Your task to perform on an android device: find snoozed emails in the gmail app Image 0: 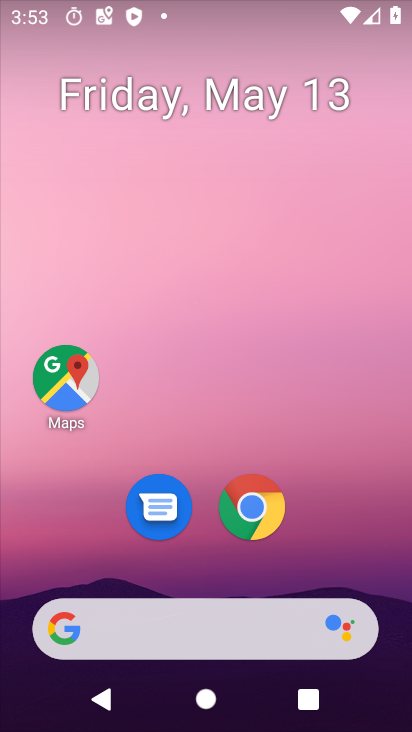
Step 0: drag from (259, 554) to (261, 118)
Your task to perform on an android device: find snoozed emails in the gmail app Image 1: 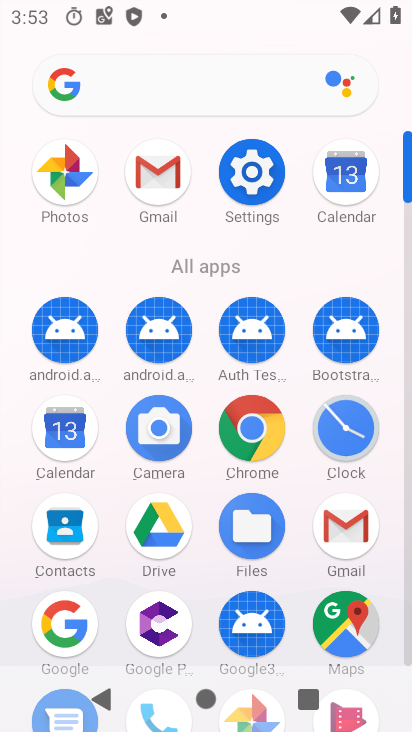
Step 1: click (170, 174)
Your task to perform on an android device: find snoozed emails in the gmail app Image 2: 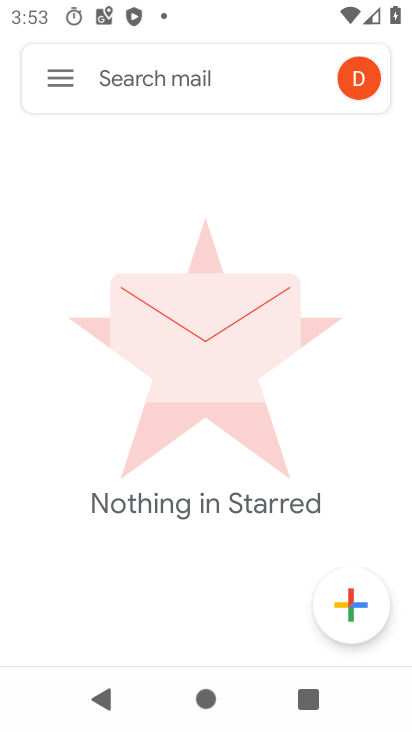
Step 2: click (44, 81)
Your task to perform on an android device: find snoozed emails in the gmail app Image 3: 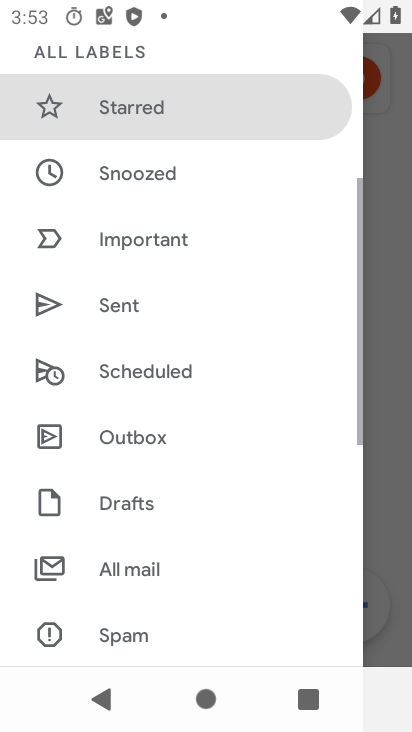
Step 3: click (132, 184)
Your task to perform on an android device: find snoozed emails in the gmail app Image 4: 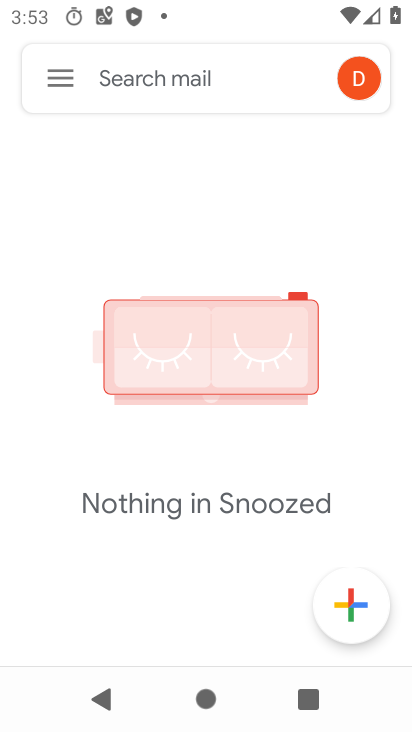
Step 4: task complete